Your task to perform on an android device: Open Google Chrome and click the shortcut for Amazon.com Image 0: 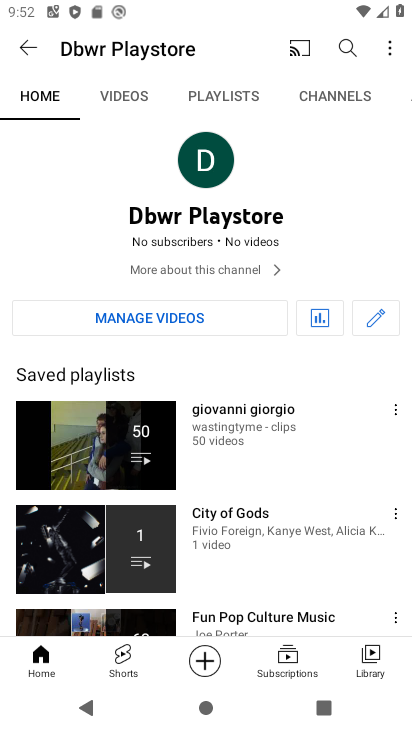
Step 0: press home button
Your task to perform on an android device: Open Google Chrome and click the shortcut for Amazon.com Image 1: 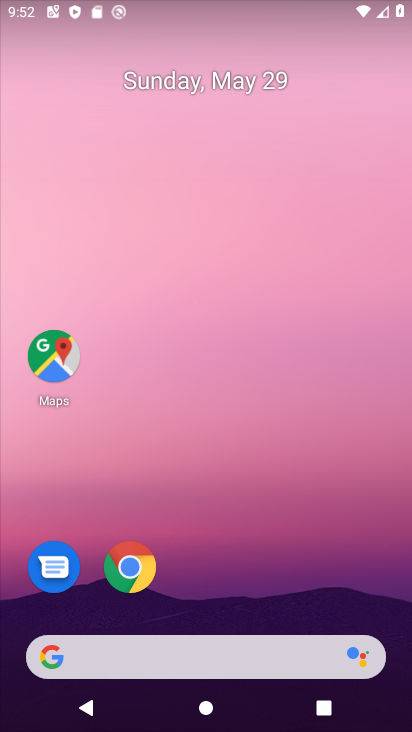
Step 1: click (125, 570)
Your task to perform on an android device: Open Google Chrome and click the shortcut for Amazon.com Image 2: 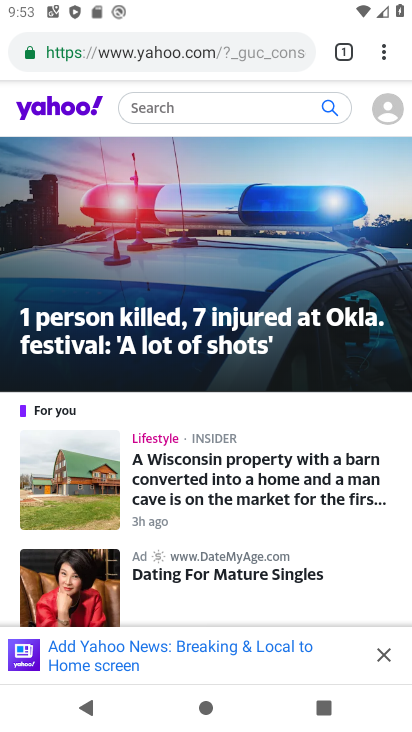
Step 2: press back button
Your task to perform on an android device: Open Google Chrome and click the shortcut for Amazon.com Image 3: 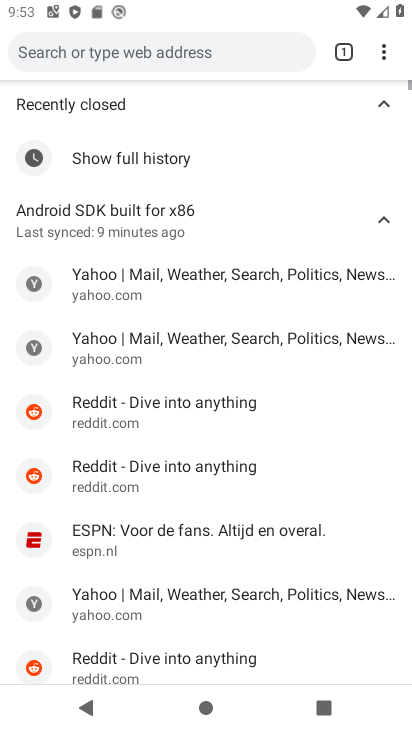
Step 3: press back button
Your task to perform on an android device: Open Google Chrome and click the shortcut for Amazon.com Image 4: 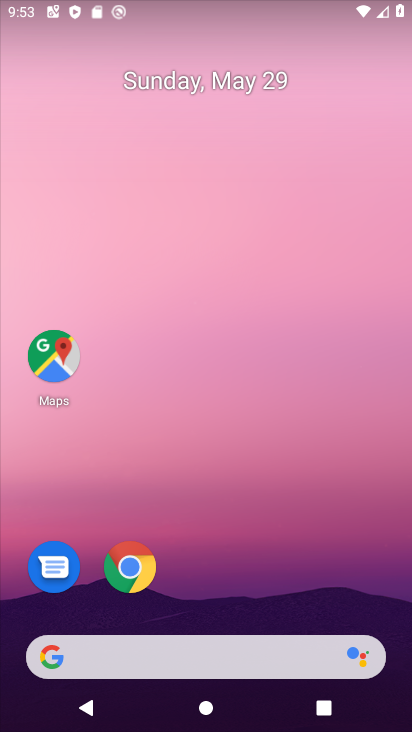
Step 4: click (128, 577)
Your task to perform on an android device: Open Google Chrome and click the shortcut for Amazon.com Image 5: 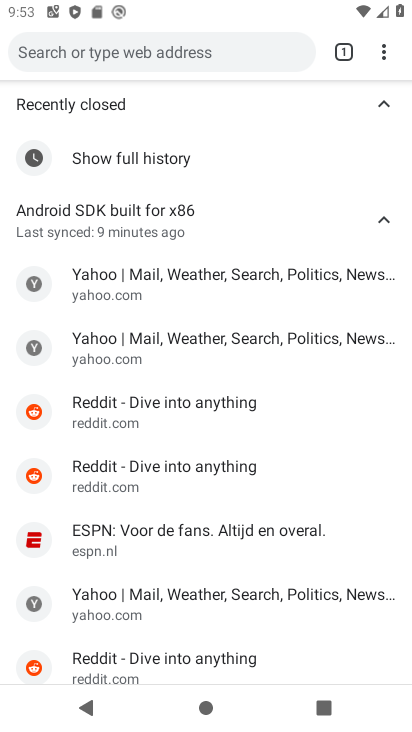
Step 5: click (384, 57)
Your task to perform on an android device: Open Google Chrome and click the shortcut for Amazon.com Image 6: 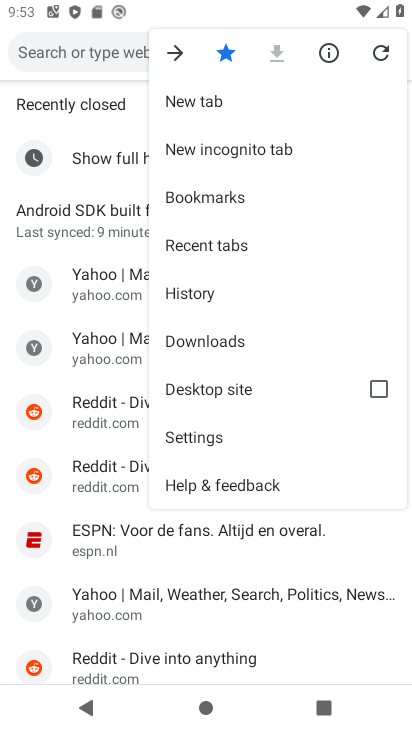
Step 6: click (198, 95)
Your task to perform on an android device: Open Google Chrome and click the shortcut for Amazon.com Image 7: 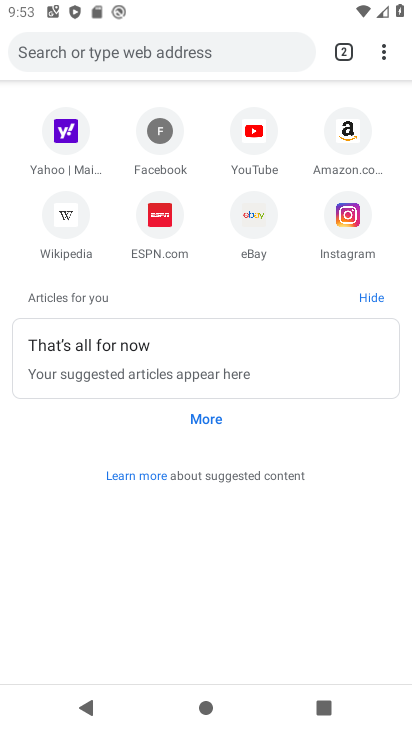
Step 7: click (346, 129)
Your task to perform on an android device: Open Google Chrome and click the shortcut for Amazon.com Image 8: 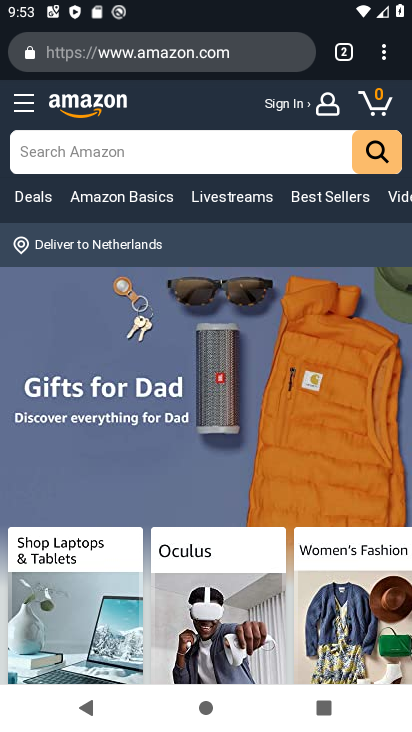
Step 8: task complete